Your task to perform on an android device: Go to notification settings Image 0: 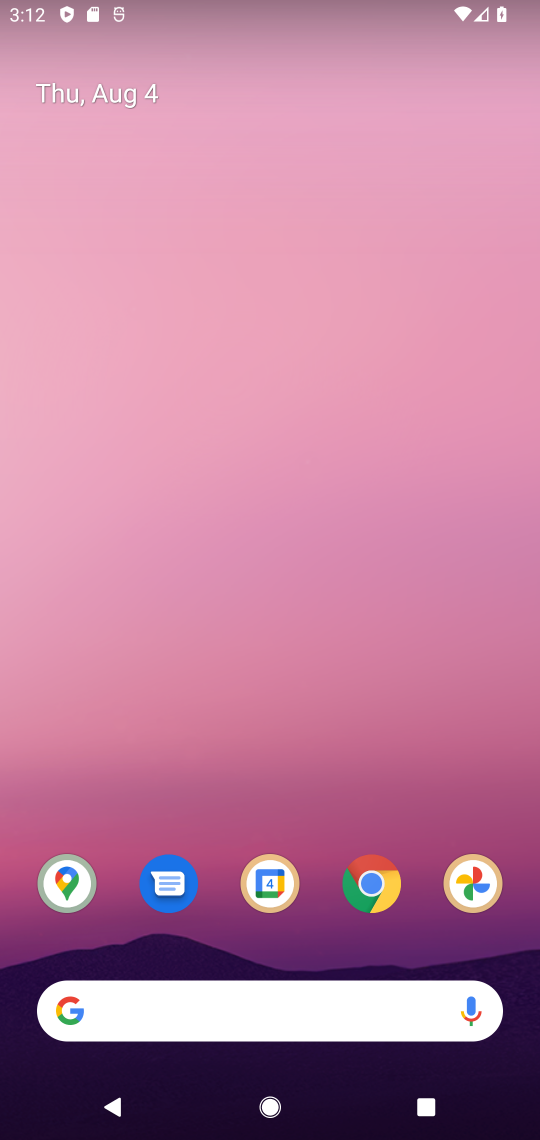
Step 0: drag from (420, 744) to (259, 72)
Your task to perform on an android device: Go to notification settings Image 1: 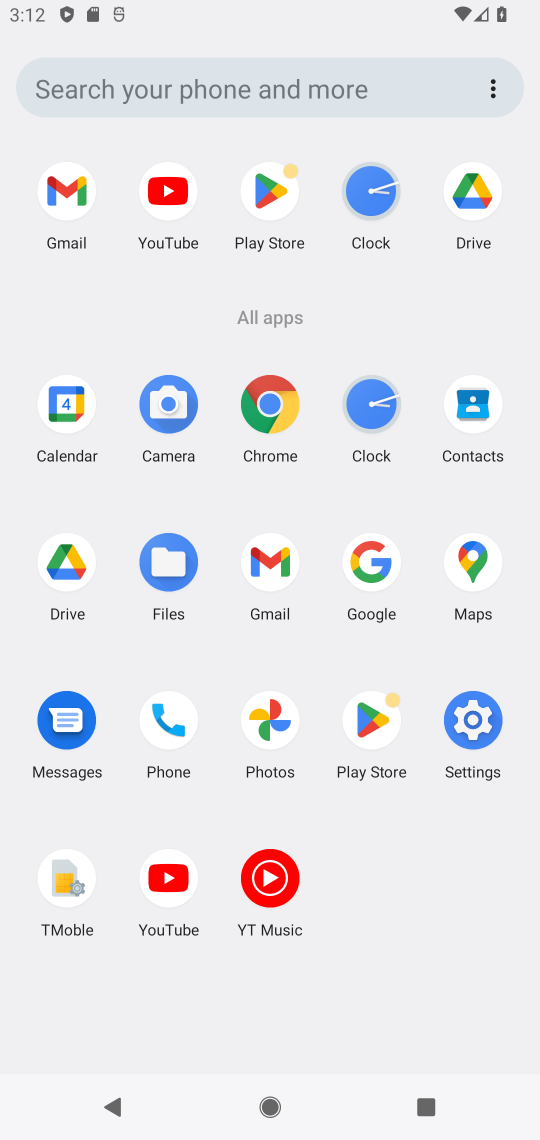
Step 1: click (470, 729)
Your task to perform on an android device: Go to notification settings Image 2: 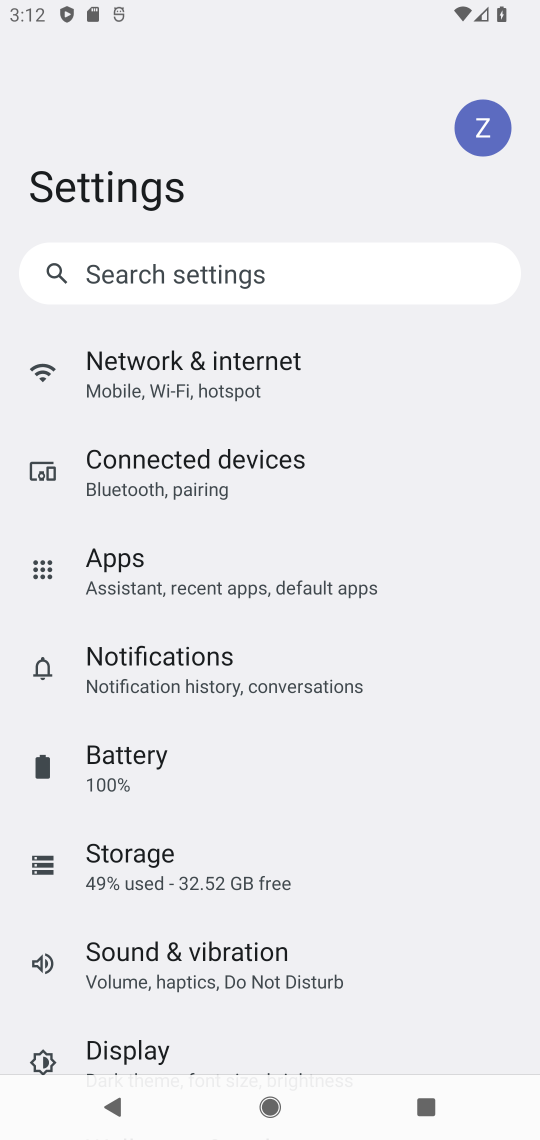
Step 2: click (181, 665)
Your task to perform on an android device: Go to notification settings Image 3: 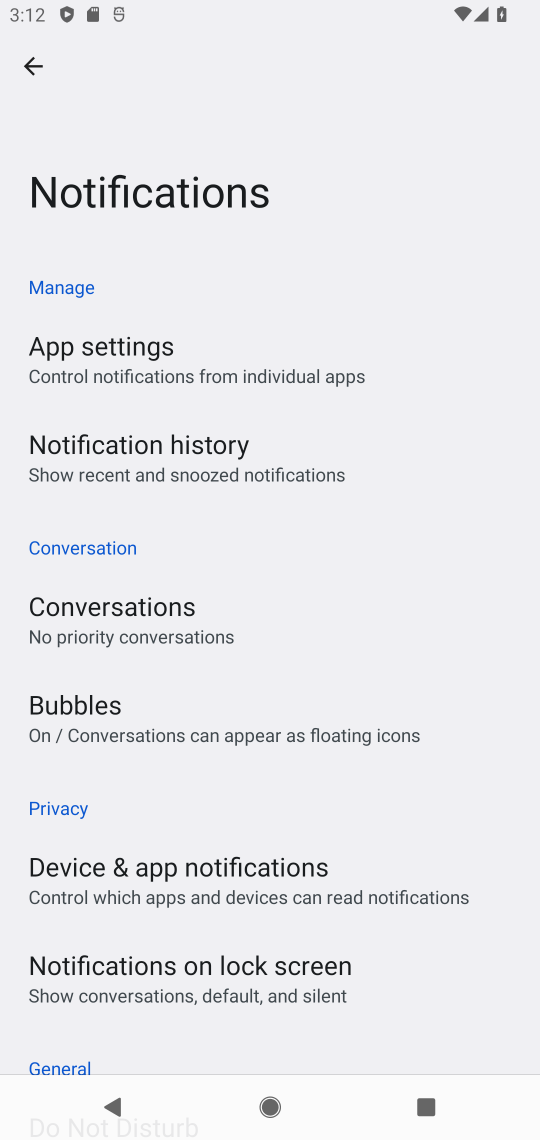
Step 3: task complete